Your task to perform on an android device: toggle pop-ups in chrome Image 0: 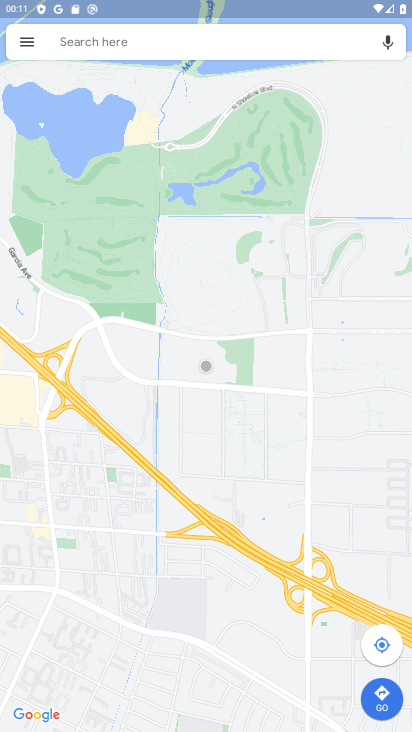
Step 0: press home button
Your task to perform on an android device: toggle pop-ups in chrome Image 1: 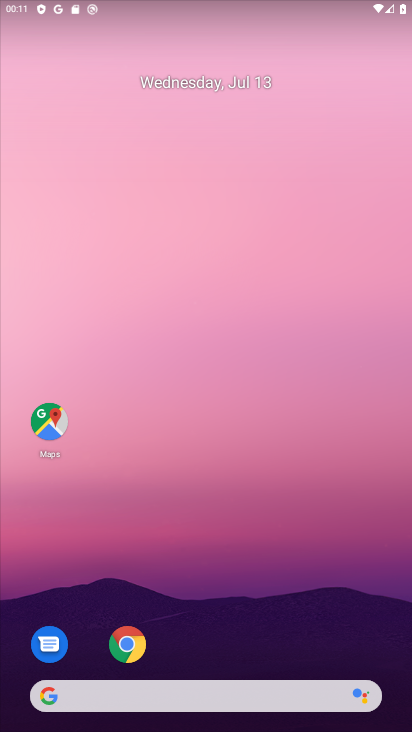
Step 1: click (119, 656)
Your task to perform on an android device: toggle pop-ups in chrome Image 2: 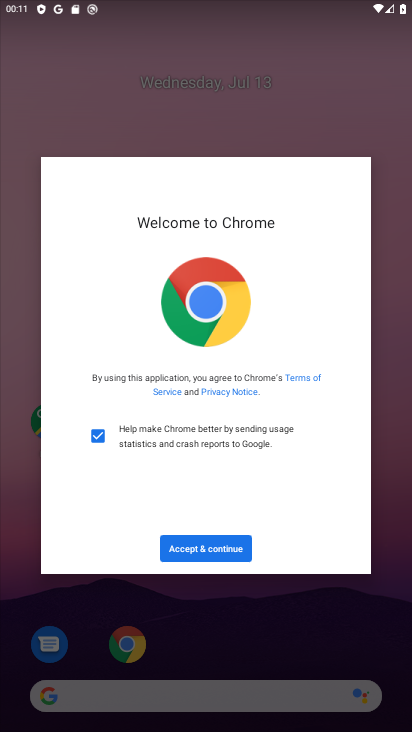
Step 2: click (204, 543)
Your task to perform on an android device: toggle pop-ups in chrome Image 3: 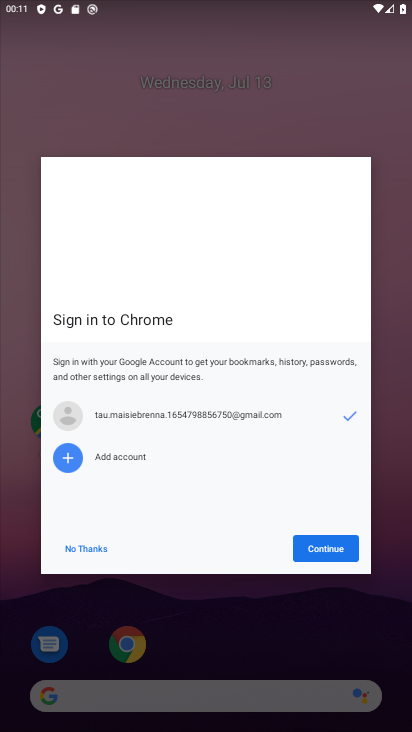
Step 3: click (313, 557)
Your task to perform on an android device: toggle pop-ups in chrome Image 4: 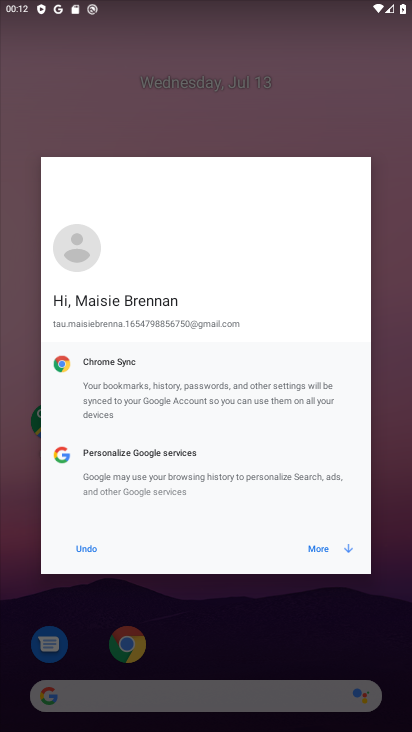
Step 4: click (321, 547)
Your task to perform on an android device: toggle pop-ups in chrome Image 5: 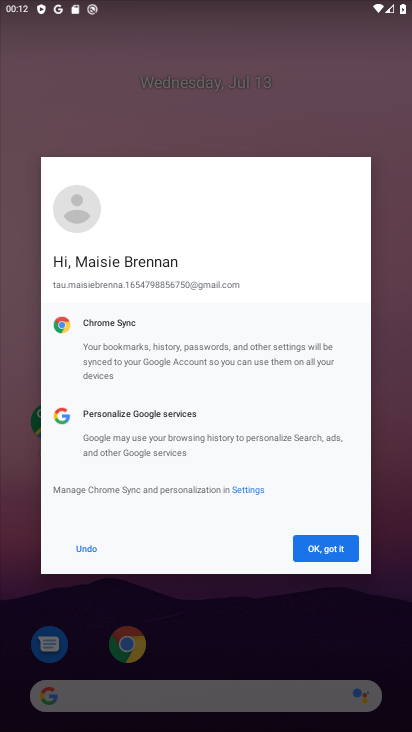
Step 5: click (321, 547)
Your task to perform on an android device: toggle pop-ups in chrome Image 6: 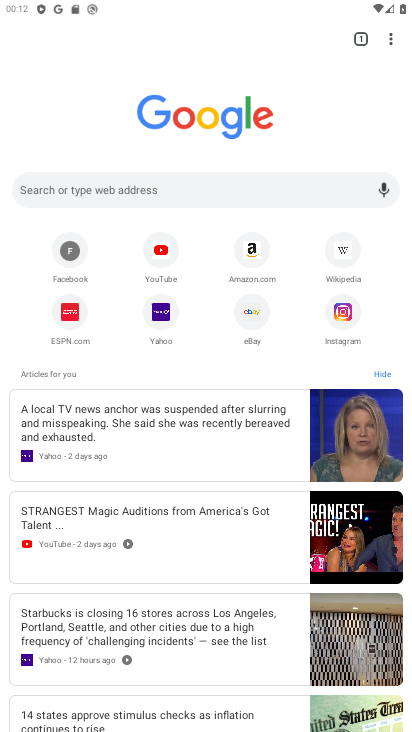
Step 6: click (385, 33)
Your task to perform on an android device: toggle pop-ups in chrome Image 7: 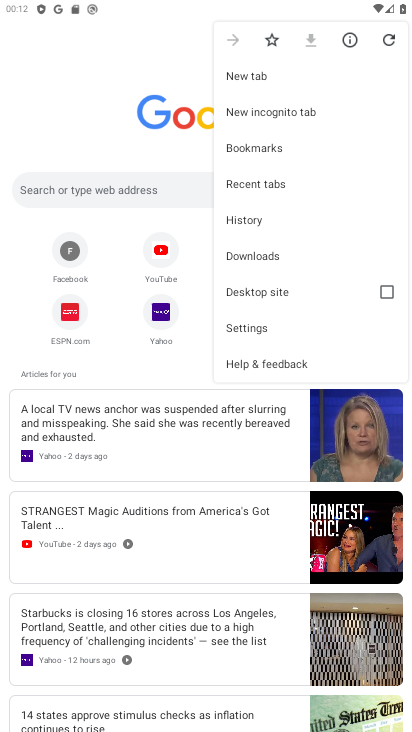
Step 7: click (273, 326)
Your task to perform on an android device: toggle pop-ups in chrome Image 8: 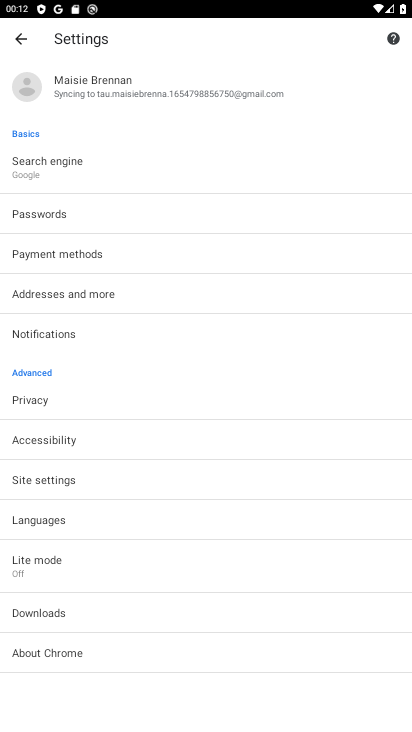
Step 8: click (58, 478)
Your task to perform on an android device: toggle pop-ups in chrome Image 9: 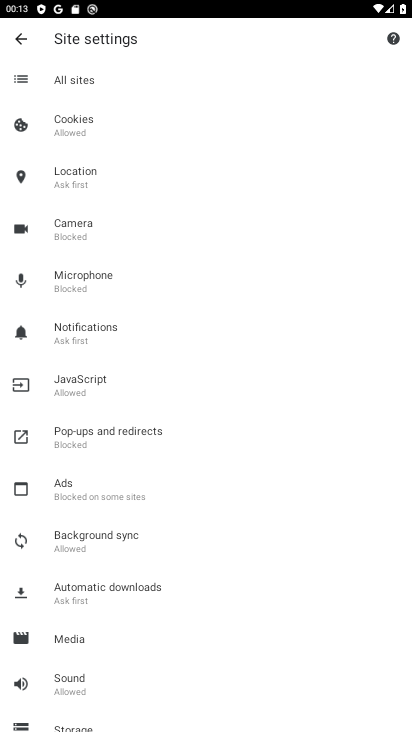
Step 9: click (123, 432)
Your task to perform on an android device: toggle pop-ups in chrome Image 10: 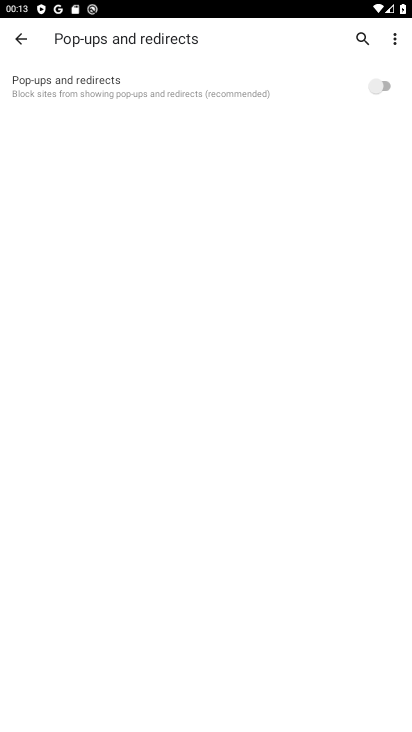
Step 10: click (374, 82)
Your task to perform on an android device: toggle pop-ups in chrome Image 11: 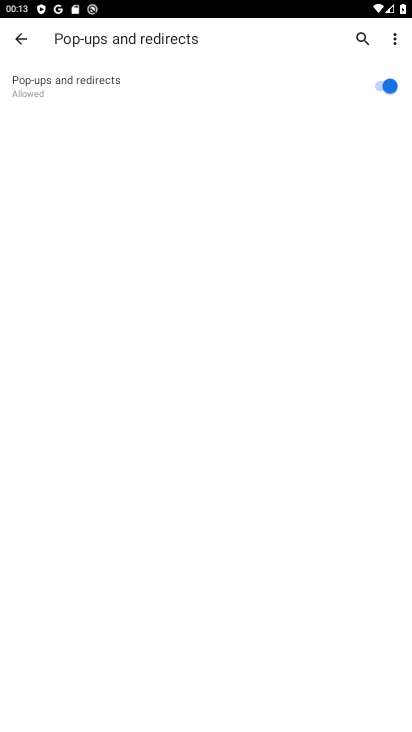
Step 11: task complete